Your task to perform on an android device: Open CNN.com Image 0: 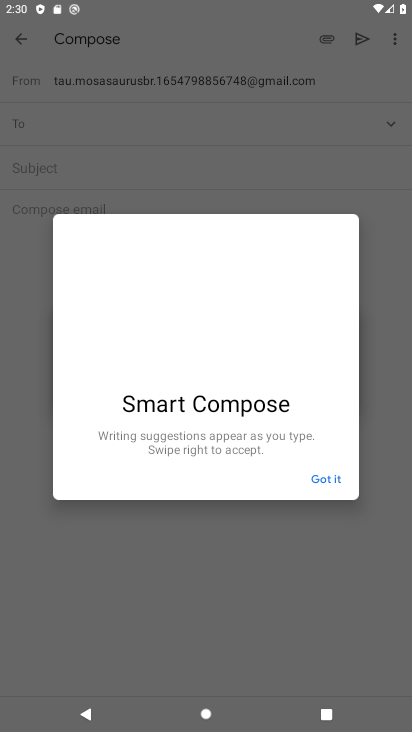
Step 0: press home button
Your task to perform on an android device: Open CNN.com Image 1: 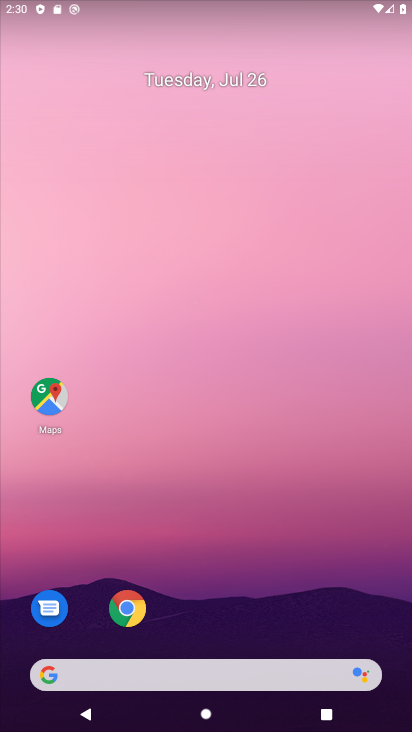
Step 1: click (252, 672)
Your task to perform on an android device: Open CNN.com Image 2: 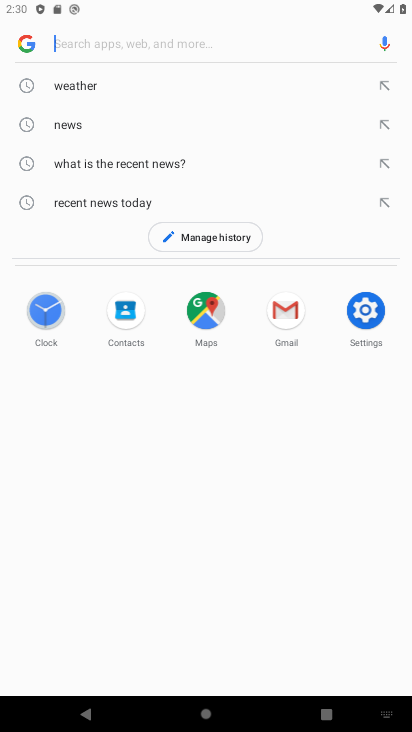
Step 2: type "CNN.com"
Your task to perform on an android device: Open CNN.com Image 3: 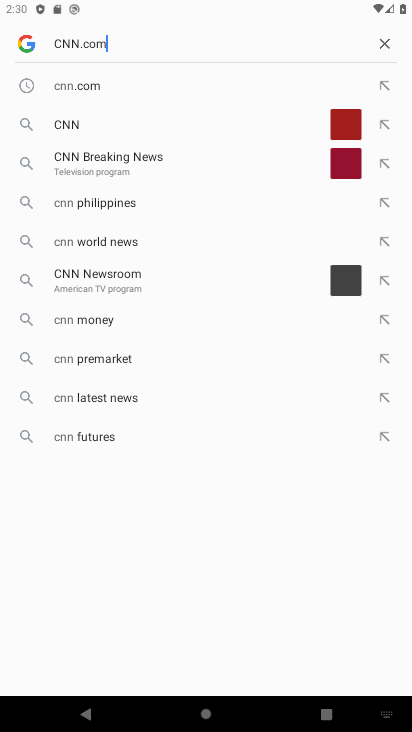
Step 3: type ""
Your task to perform on an android device: Open CNN.com Image 4: 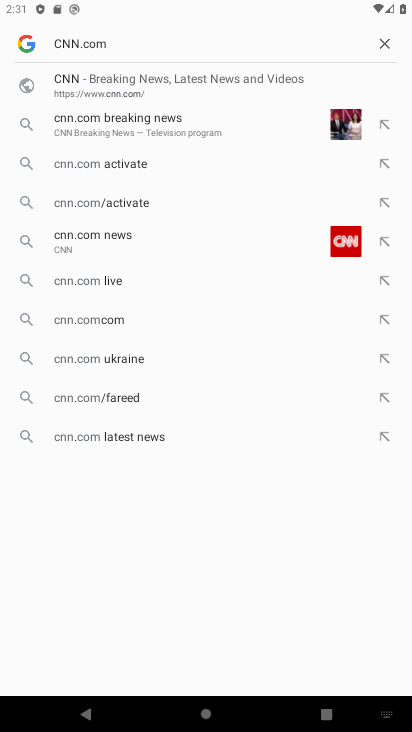
Step 4: press enter
Your task to perform on an android device: Open CNN.com Image 5: 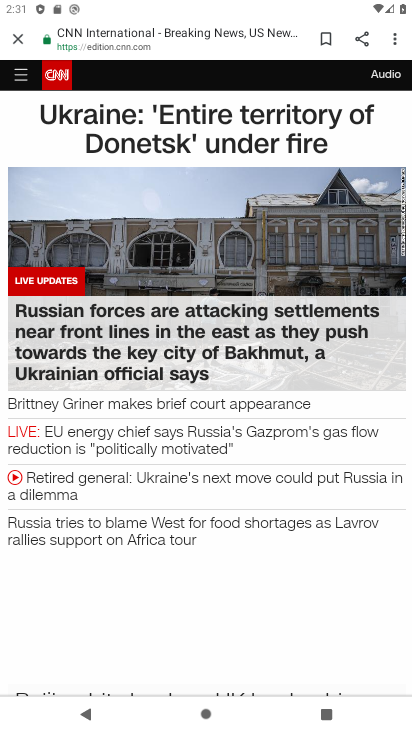
Step 5: task complete